Your task to perform on an android device: open chrome and create a bookmark for the current page Image 0: 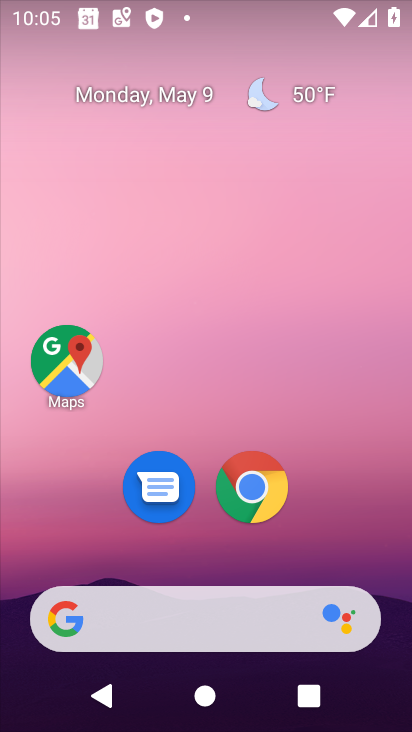
Step 0: click (245, 495)
Your task to perform on an android device: open chrome and create a bookmark for the current page Image 1: 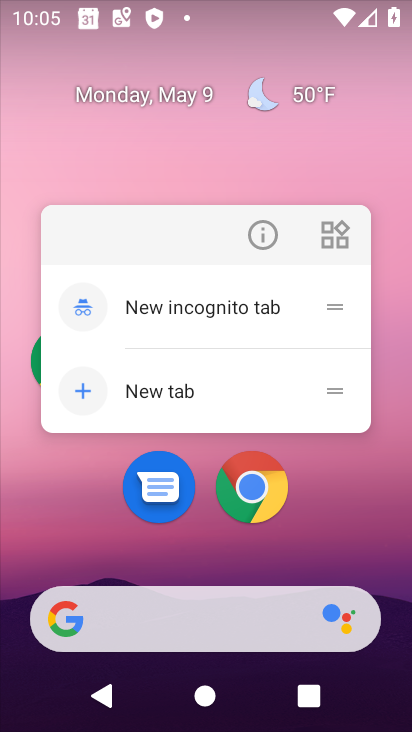
Step 1: click (265, 234)
Your task to perform on an android device: open chrome and create a bookmark for the current page Image 2: 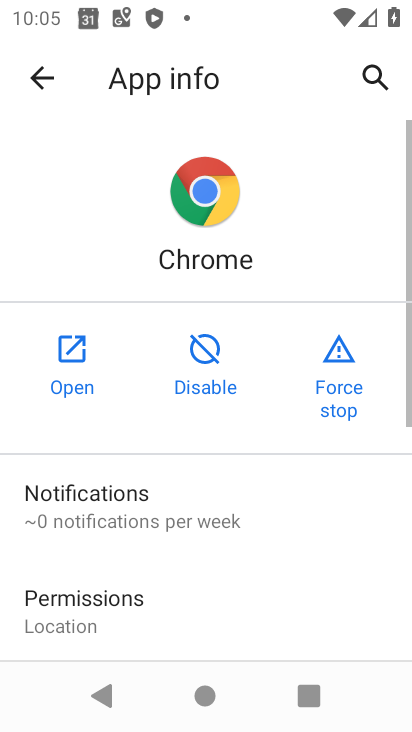
Step 2: click (79, 361)
Your task to perform on an android device: open chrome and create a bookmark for the current page Image 3: 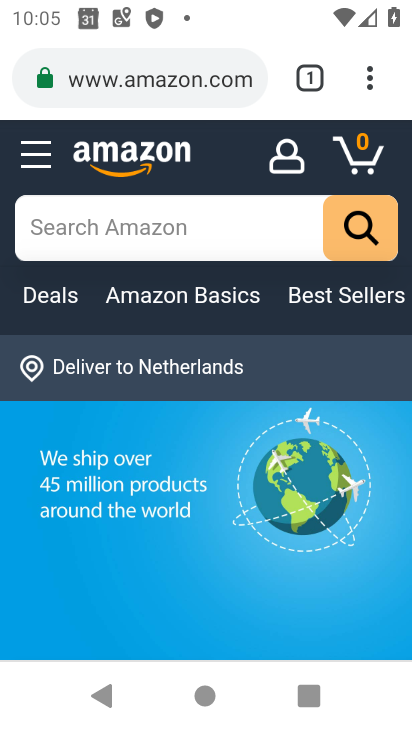
Step 3: click (369, 73)
Your task to perform on an android device: open chrome and create a bookmark for the current page Image 4: 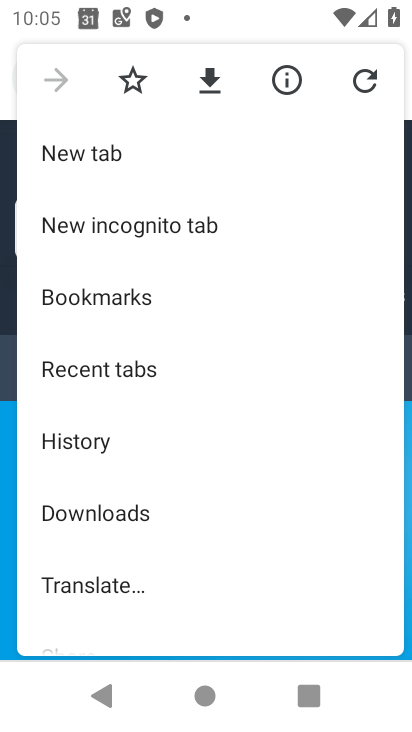
Step 4: click (131, 77)
Your task to perform on an android device: open chrome and create a bookmark for the current page Image 5: 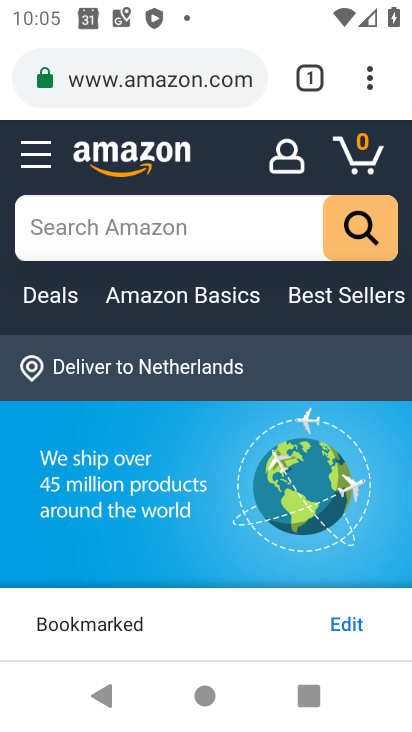
Step 5: task complete